Your task to perform on an android device: refresh tabs in the chrome app Image 0: 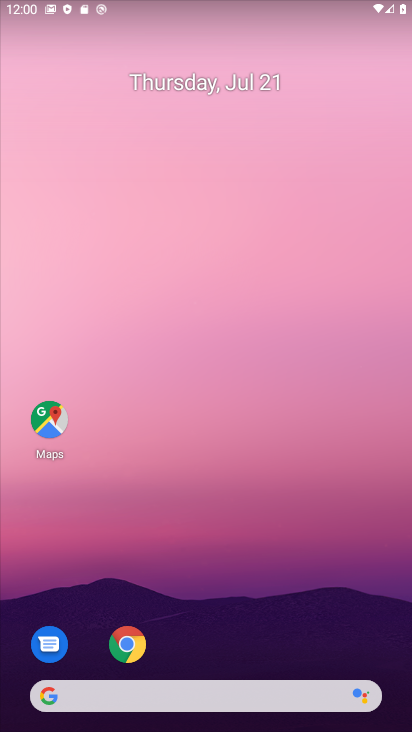
Step 0: drag from (237, 661) to (167, 139)
Your task to perform on an android device: refresh tabs in the chrome app Image 1: 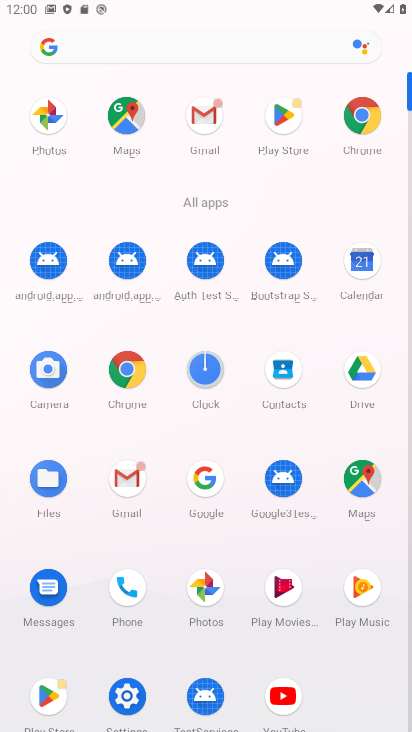
Step 1: click (126, 388)
Your task to perform on an android device: refresh tabs in the chrome app Image 2: 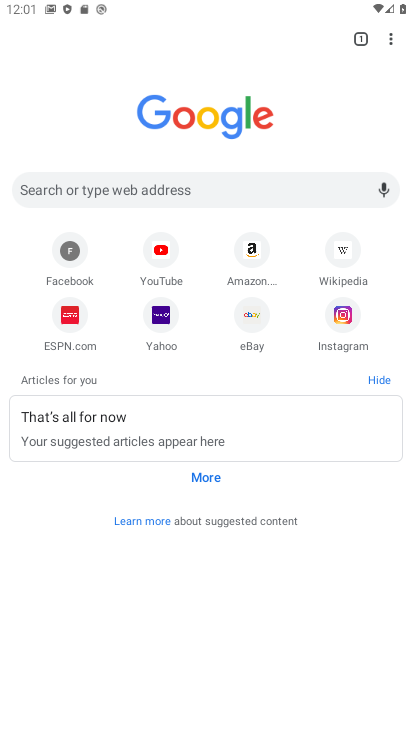
Step 2: click (387, 36)
Your task to perform on an android device: refresh tabs in the chrome app Image 3: 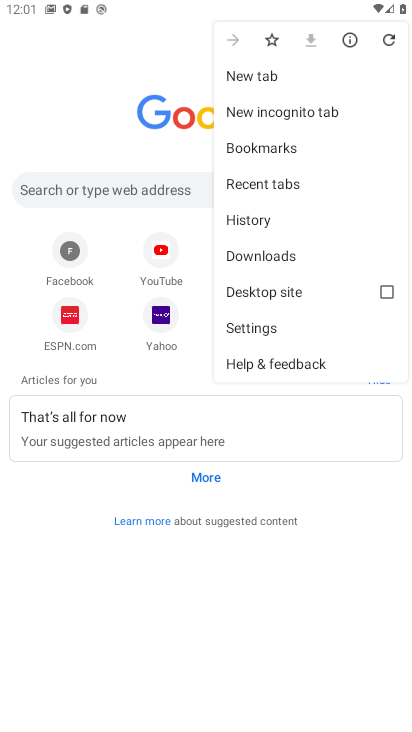
Step 3: click (379, 39)
Your task to perform on an android device: refresh tabs in the chrome app Image 4: 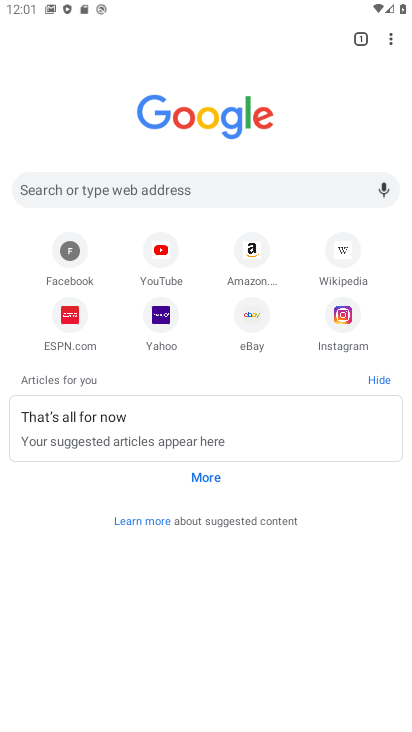
Step 4: task complete